Your task to perform on an android device: check data usage Image 0: 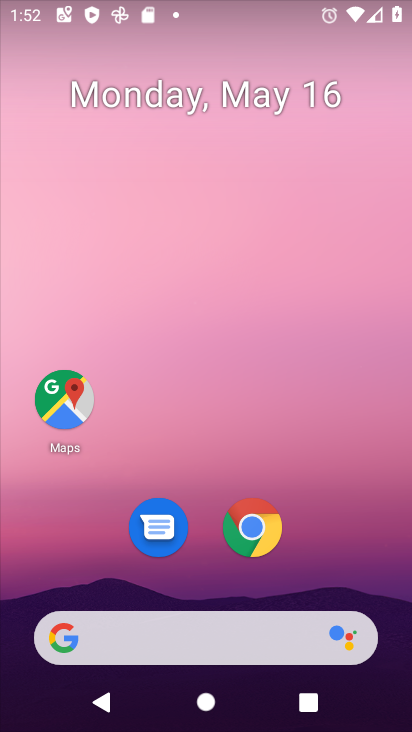
Step 0: drag from (343, 549) to (358, 189)
Your task to perform on an android device: check data usage Image 1: 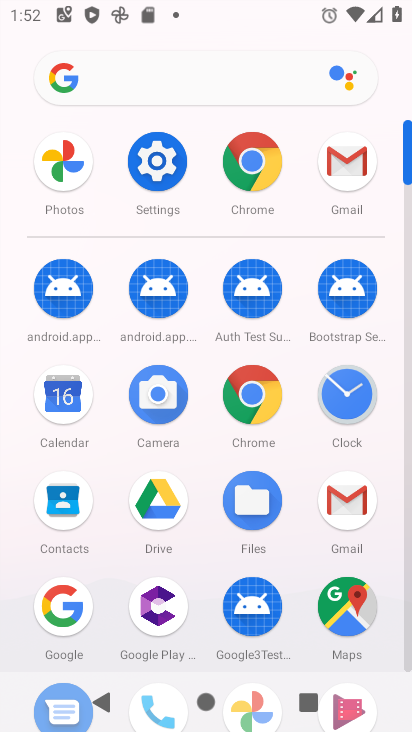
Step 1: click (171, 188)
Your task to perform on an android device: check data usage Image 2: 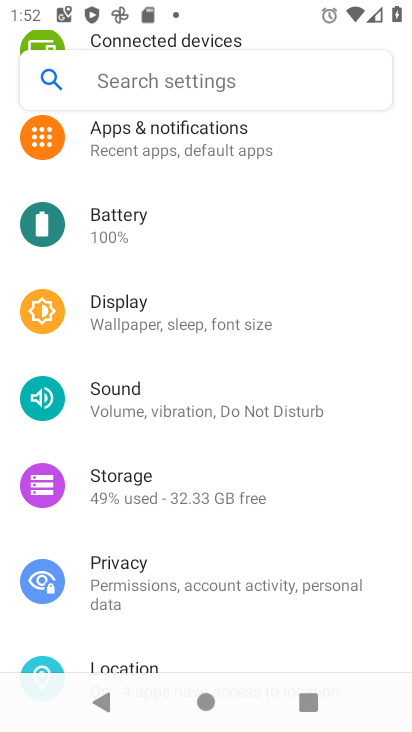
Step 2: drag from (192, 280) to (242, 516)
Your task to perform on an android device: check data usage Image 3: 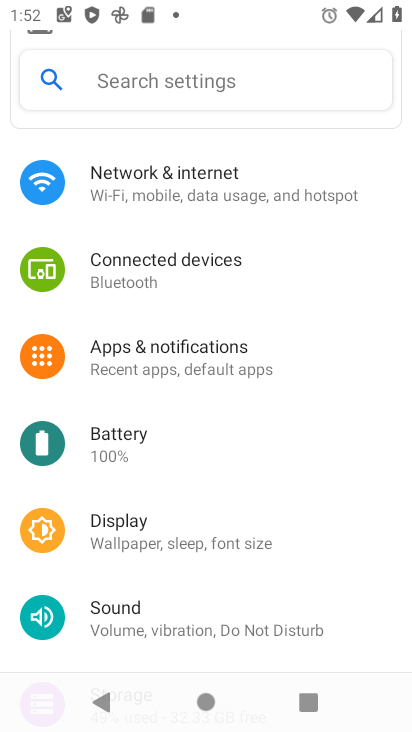
Step 3: drag from (244, 549) to (267, 274)
Your task to perform on an android device: check data usage Image 4: 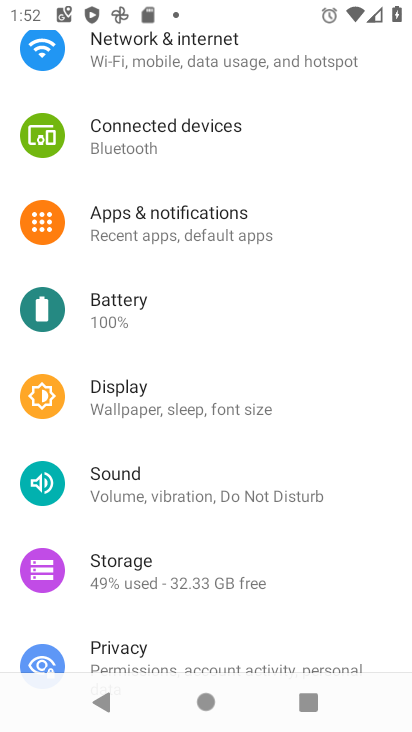
Step 4: click (174, 83)
Your task to perform on an android device: check data usage Image 5: 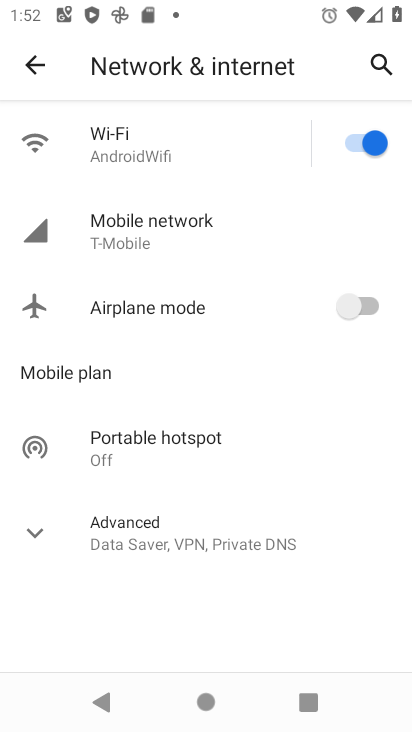
Step 5: task complete